Your task to perform on an android device: Open Maps and search for coffee Image 0: 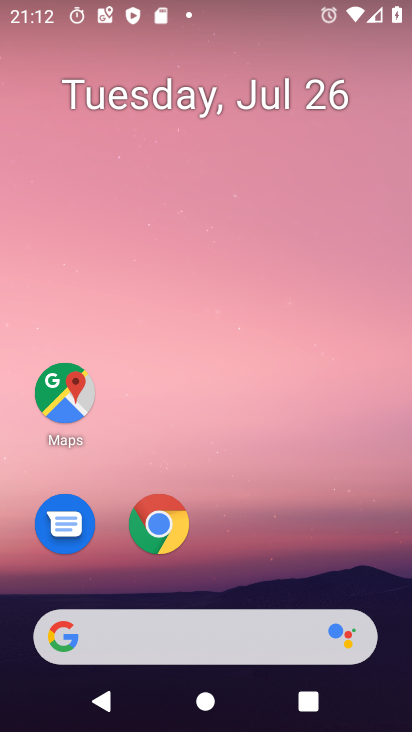
Step 0: click (63, 375)
Your task to perform on an android device: Open Maps and search for coffee Image 1: 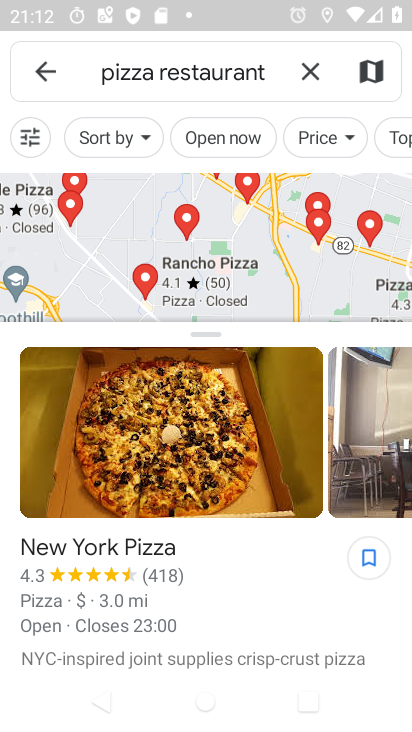
Step 1: click (313, 65)
Your task to perform on an android device: Open Maps and search for coffee Image 2: 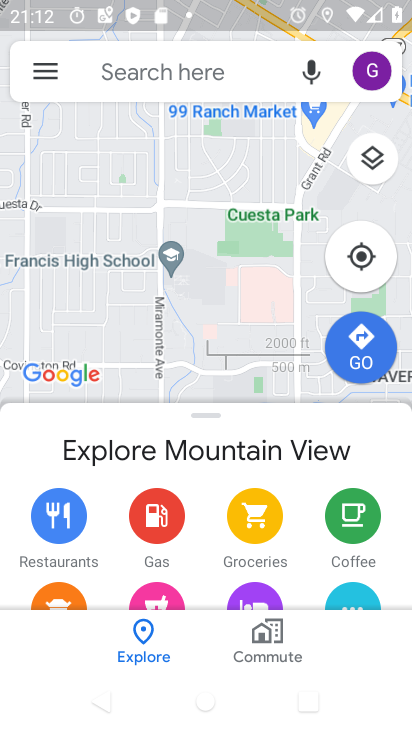
Step 2: click (232, 70)
Your task to perform on an android device: Open Maps and search for coffee Image 3: 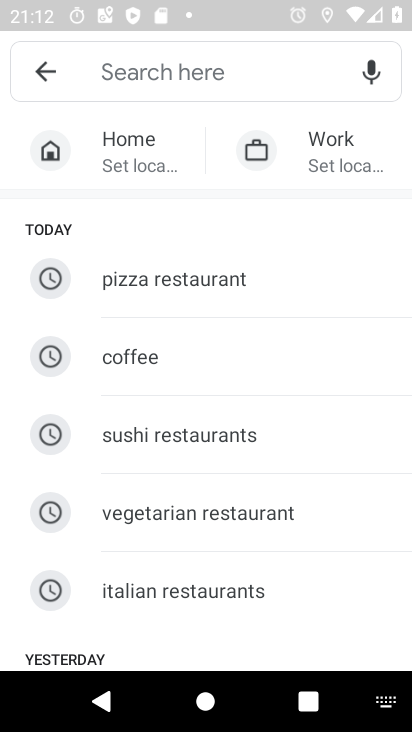
Step 3: click (133, 355)
Your task to perform on an android device: Open Maps and search for coffee Image 4: 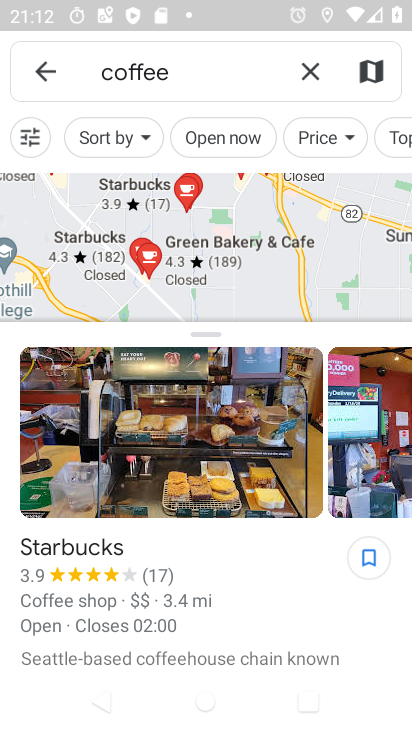
Step 4: task complete